Your task to perform on an android device: turn off smart reply in the gmail app Image 0: 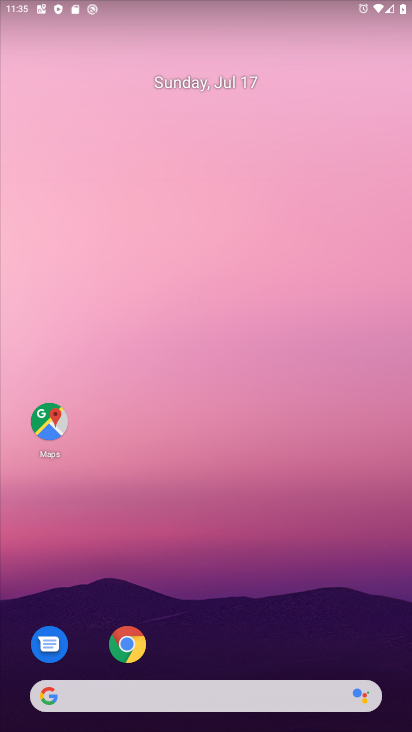
Step 0: drag from (229, 635) to (234, 165)
Your task to perform on an android device: turn off smart reply in the gmail app Image 1: 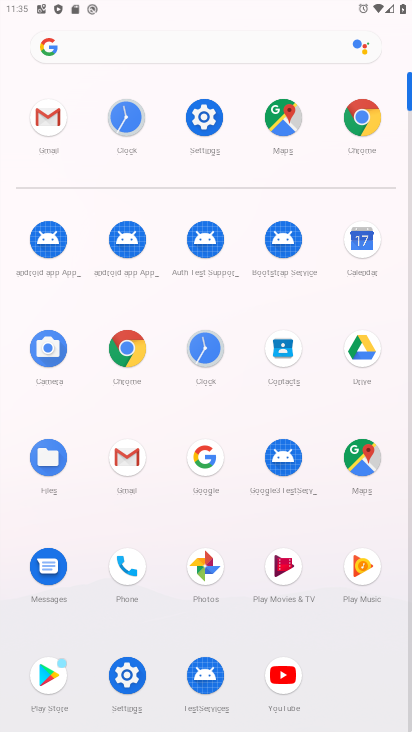
Step 1: click (46, 113)
Your task to perform on an android device: turn off smart reply in the gmail app Image 2: 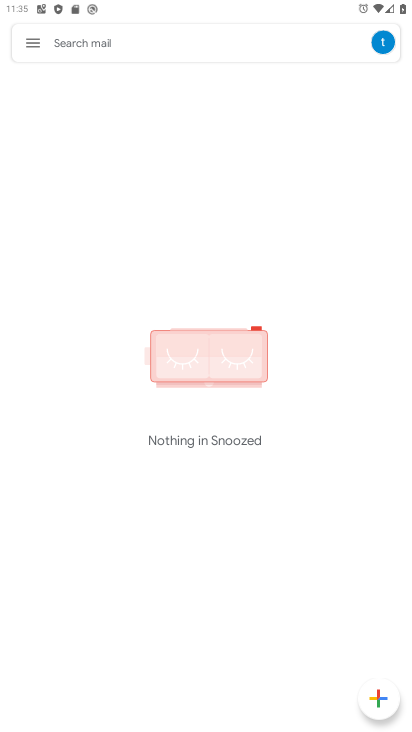
Step 2: click (30, 35)
Your task to perform on an android device: turn off smart reply in the gmail app Image 3: 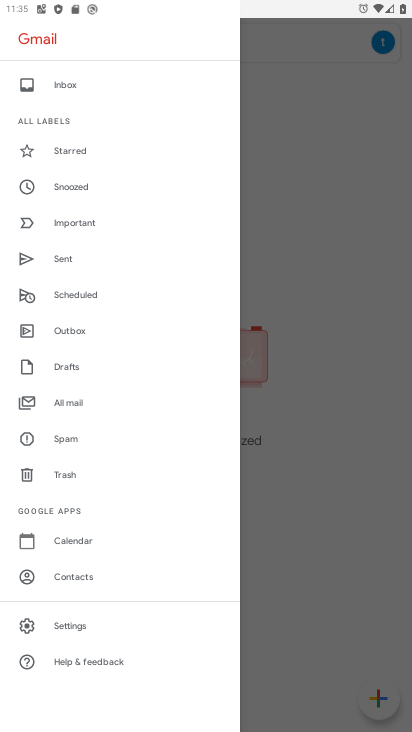
Step 3: click (110, 627)
Your task to perform on an android device: turn off smart reply in the gmail app Image 4: 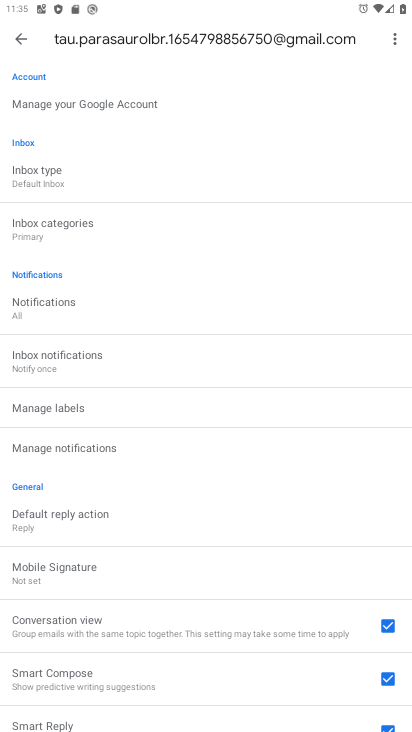
Step 4: drag from (320, 665) to (324, 337)
Your task to perform on an android device: turn off smart reply in the gmail app Image 5: 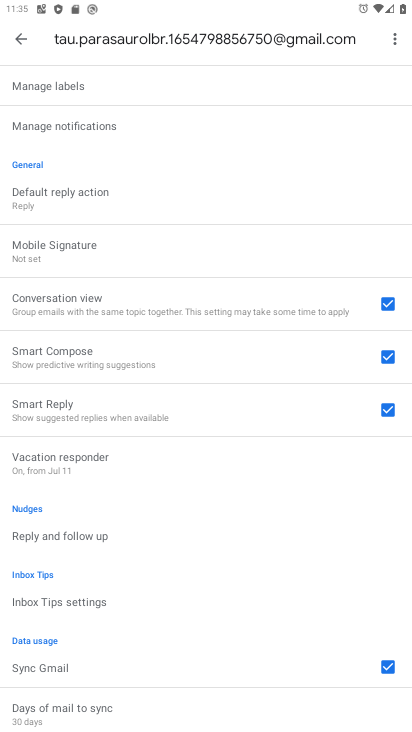
Step 5: click (388, 410)
Your task to perform on an android device: turn off smart reply in the gmail app Image 6: 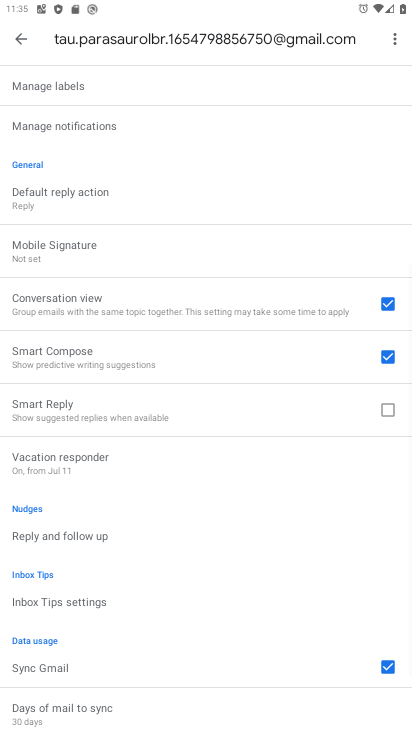
Step 6: task complete